Your task to perform on an android device: Search for a new mascara on Sephora Image 0: 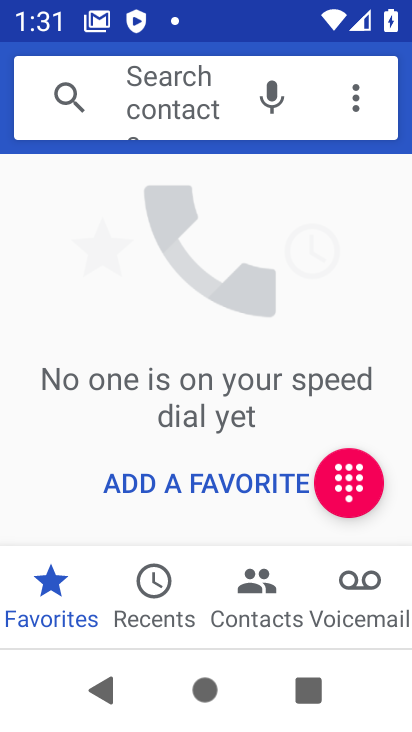
Step 0: press home button
Your task to perform on an android device: Search for a new mascara on Sephora Image 1: 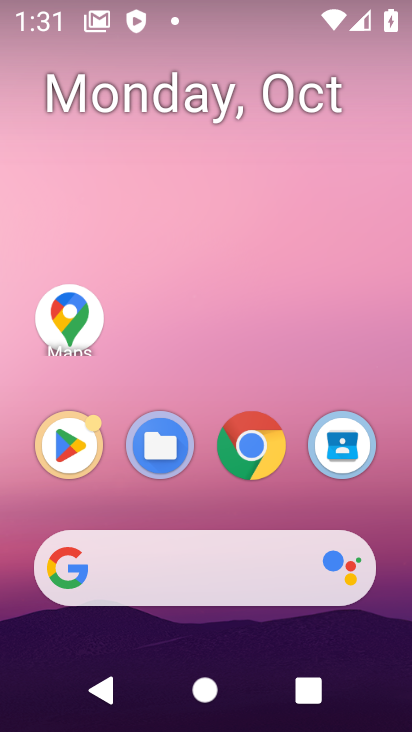
Step 1: click (62, 447)
Your task to perform on an android device: Search for a new mascara on Sephora Image 2: 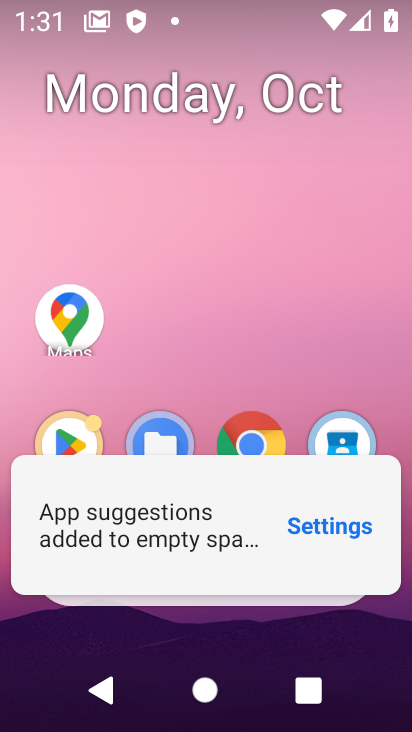
Step 2: click (142, 361)
Your task to perform on an android device: Search for a new mascara on Sephora Image 3: 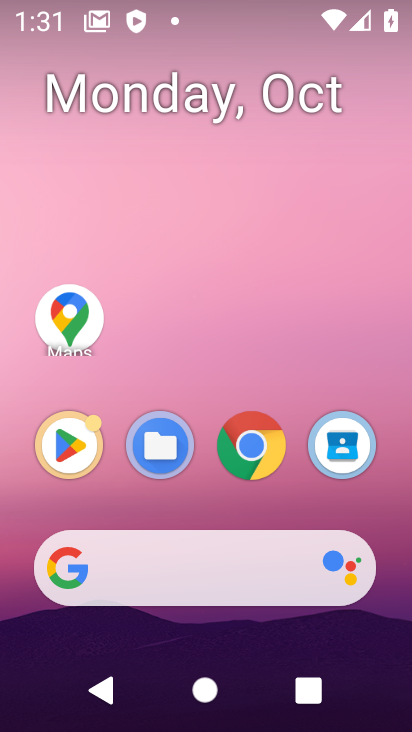
Step 3: click (169, 551)
Your task to perform on an android device: Search for a new mascara on Sephora Image 4: 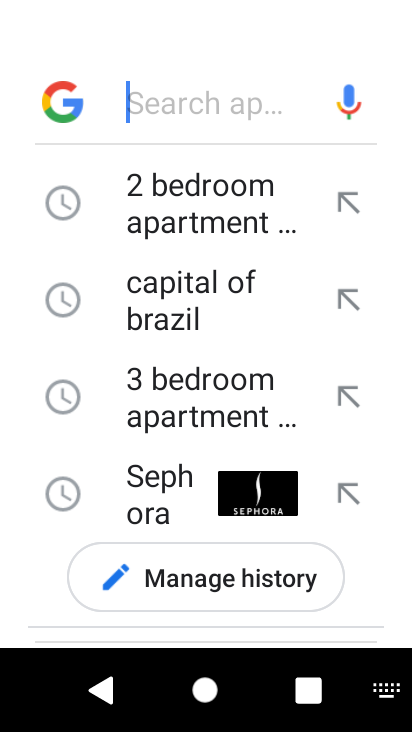
Step 4: type "new mascara on Sephora"
Your task to perform on an android device: Search for a new mascara on Sephora Image 5: 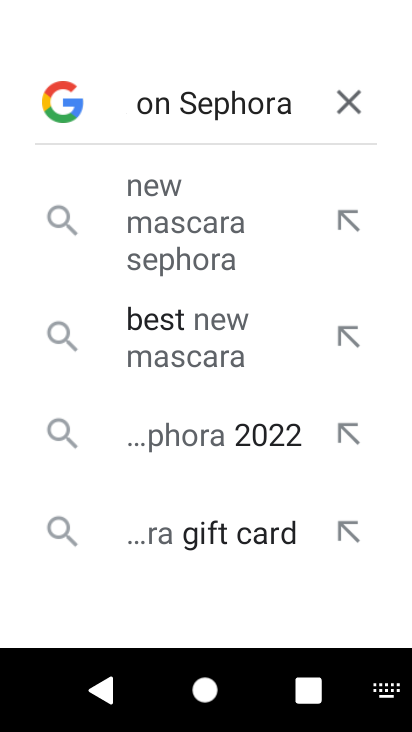
Step 5: type ""
Your task to perform on an android device: Search for a new mascara on Sephora Image 6: 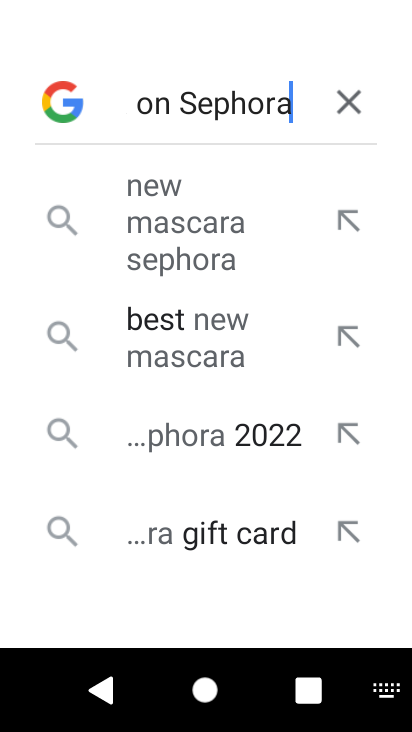
Step 6: click (182, 252)
Your task to perform on an android device: Search for a new mascara on Sephora Image 7: 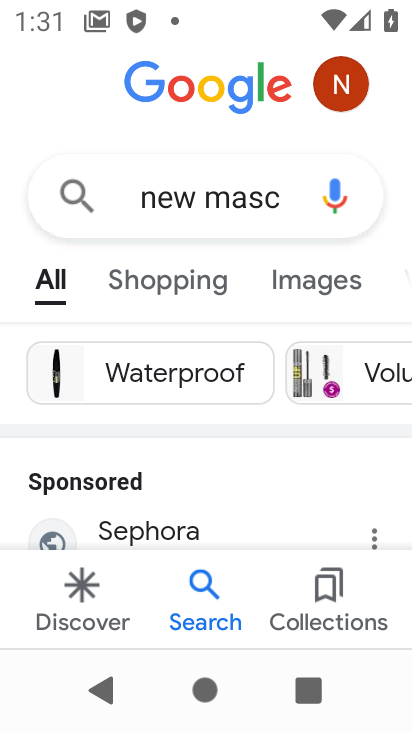
Step 7: drag from (249, 490) to (243, 210)
Your task to perform on an android device: Search for a new mascara on Sephora Image 8: 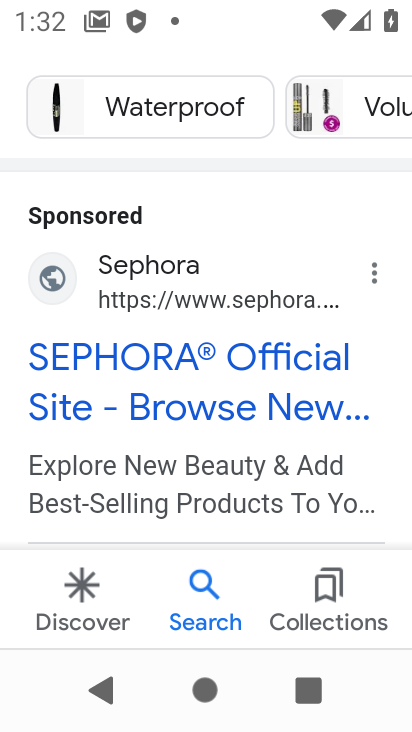
Step 8: click (151, 407)
Your task to perform on an android device: Search for a new mascara on Sephora Image 9: 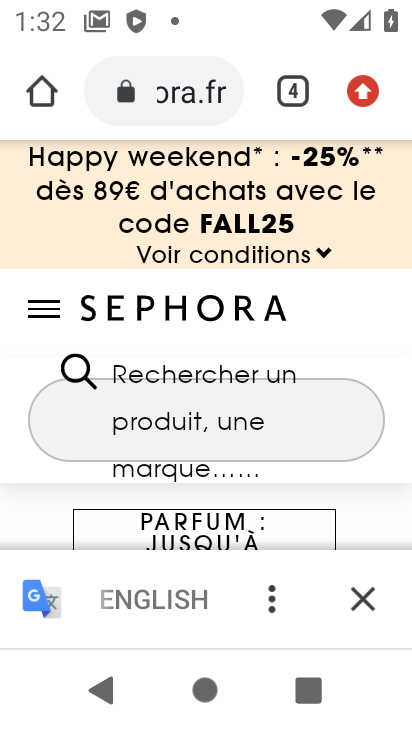
Step 9: click (76, 362)
Your task to perform on an android device: Search for a new mascara on Sephora Image 10: 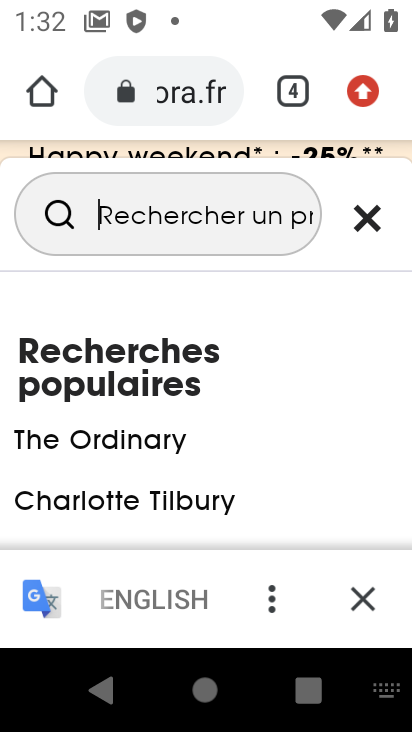
Step 10: type "new mascara"
Your task to perform on an android device: Search for a new mascara on Sephora Image 11: 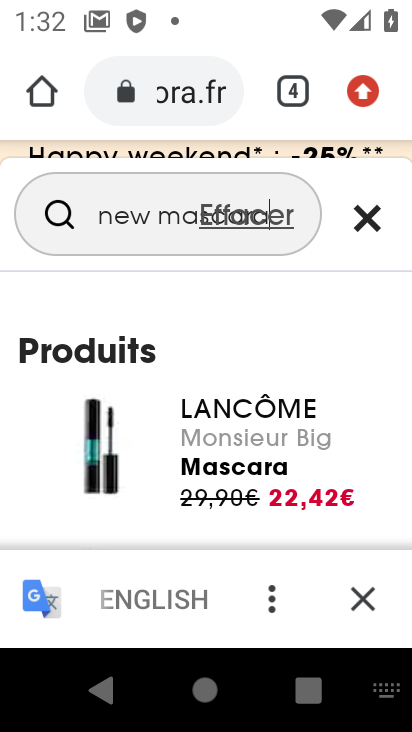
Step 11: type ""
Your task to perform on an android device: Search for a new mascara on Sephora Image 12: 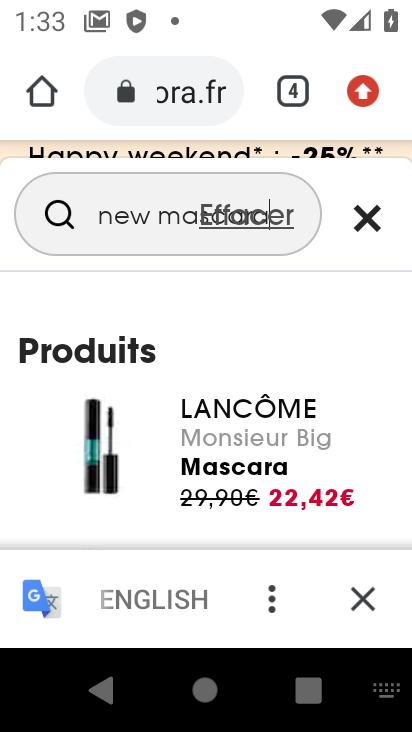
Step 12: task complete